Your task to perform on an android device: change the clock display to analog Image 0: 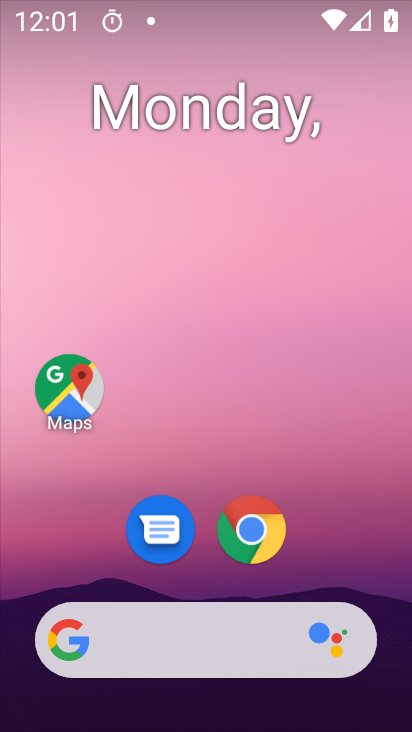
Step 0: drag from (384, 582) to (360, 171)
Your task to perform on an android device: change the clock display to analog Image 1: 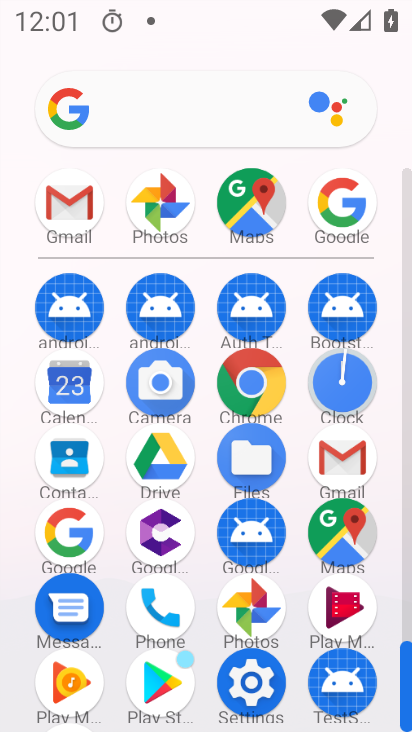
Step 1: click (344, 396)
Your task to perform on an android device: change the clock display to analog Image 2: 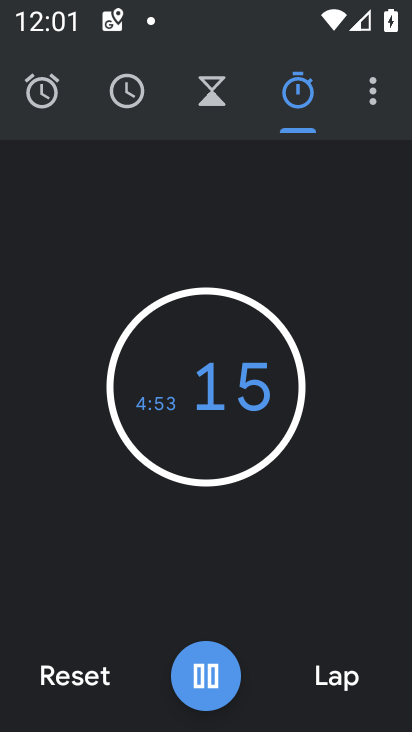
Step 2: click (376, 102)
Your task to perform on an android device: change the clock display to analog Image 3: 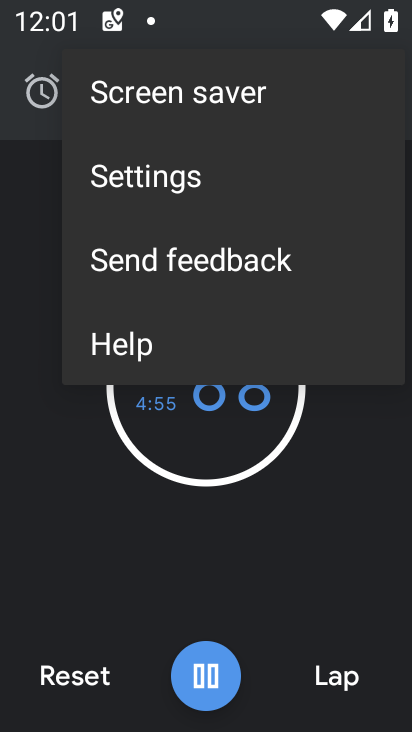
Step 3: click (240, 193)
Your task to perform on an android device: change the clock display to analog Image 4: 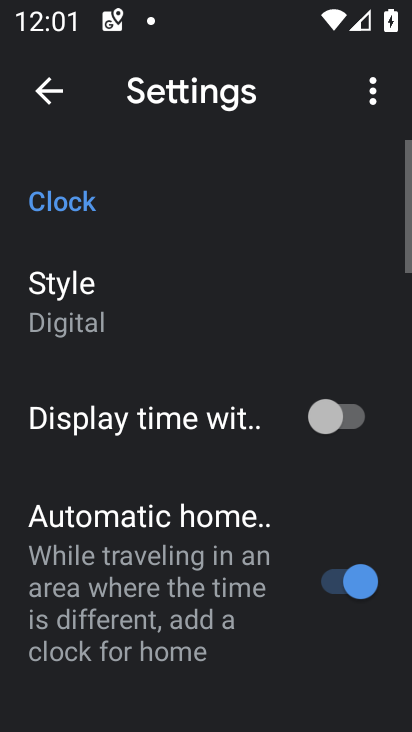
Step 4: drag from (274, 466) to (275, 360)
Your task to perform on an android device: change the clock display to analog Image 5: 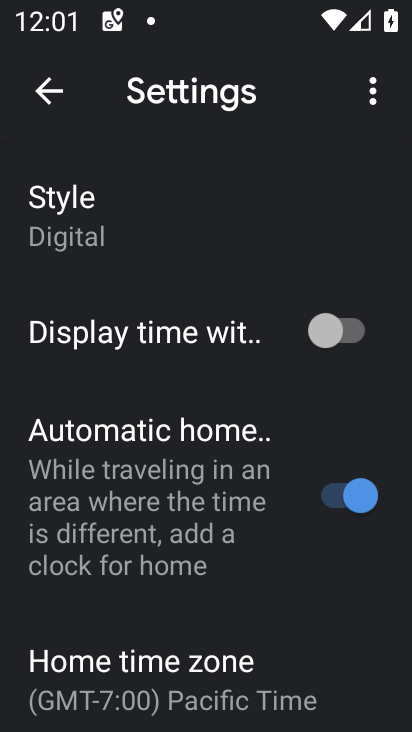
Step 5: drag from (277, 491) to (281, 375)
Your task to perform on an android device: change the clock display to analog Image 6: 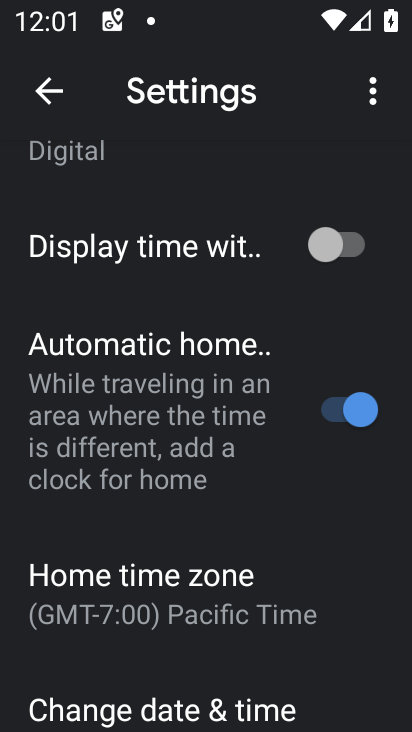
Step 6: drag from (272, 489) to (276, 370)
Your task to perform on an android device: change the clock display to analog Image 7: 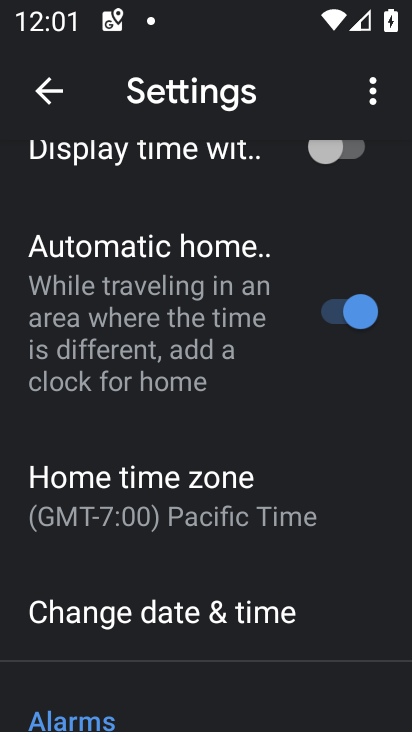
Step 7: drag from (282, 523) to (282, 422)
Your task to perform on an android device: change the clock display to analog Image 8: 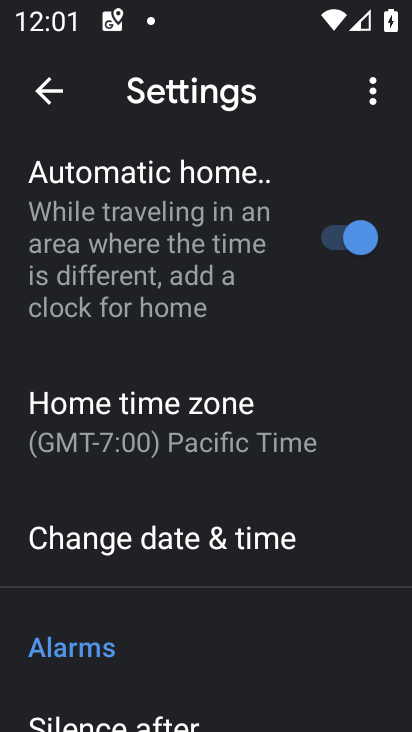
Step 8: drag from (272, 583) to (275, 462)
Your task to perform on an android device: change the clock display to analog Image 9: 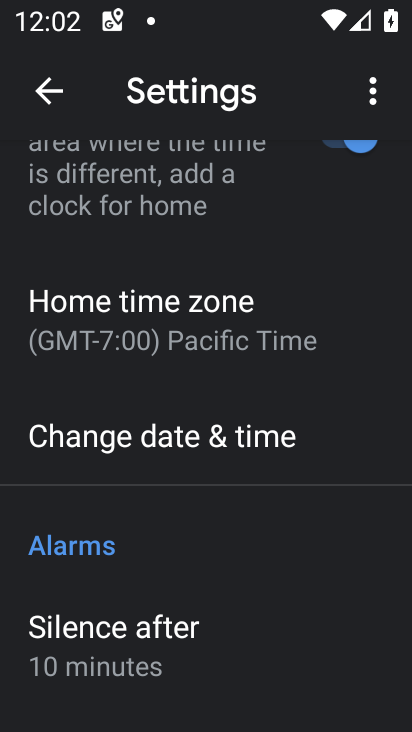
Step 9: drag from (285, 590) to (293, 490)
Your task to perform on an android device: change the clock display to analog Image 10: 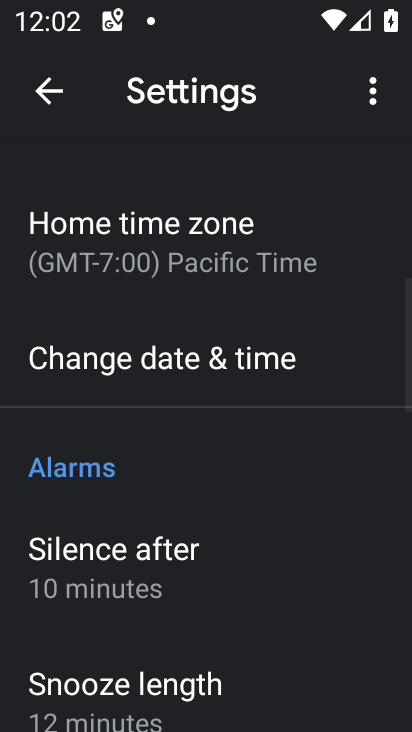
Step 10: drag from (301, 620) to (321, 500)
Your task to perform on an android device: change the clock display to analog Image 11: 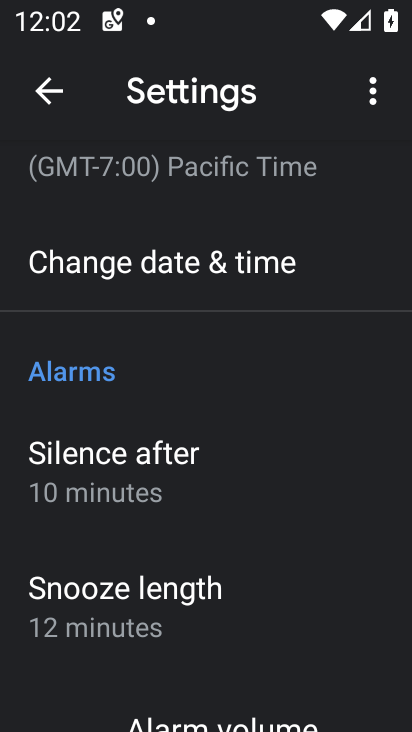
Step 11: drag from (314, 635) to (325, 481)
Your task to perform on an android device: change the clock display to analog Image 12: 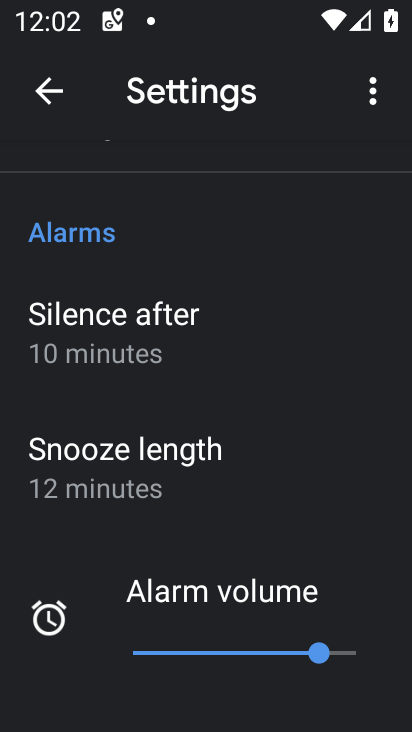
Step 12: drag from (328, 657) to (334, 499)
Your task to perform on an android device: change the clock display to analog Image 13: 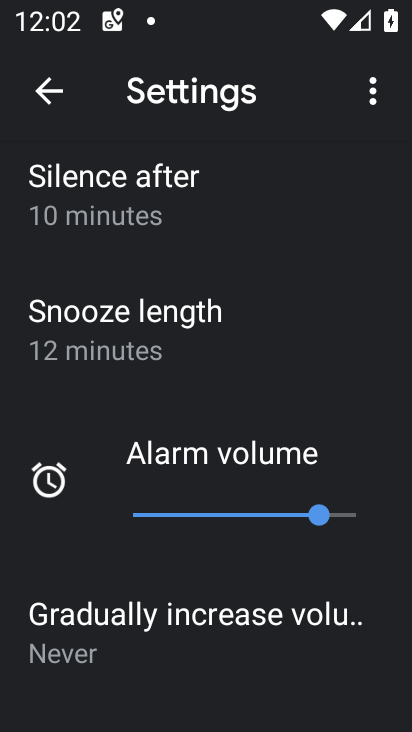
Step 13: drag from (315, 680) to (321, 497)
Your task to perform on an android device: change the clock display to analog Image 14: 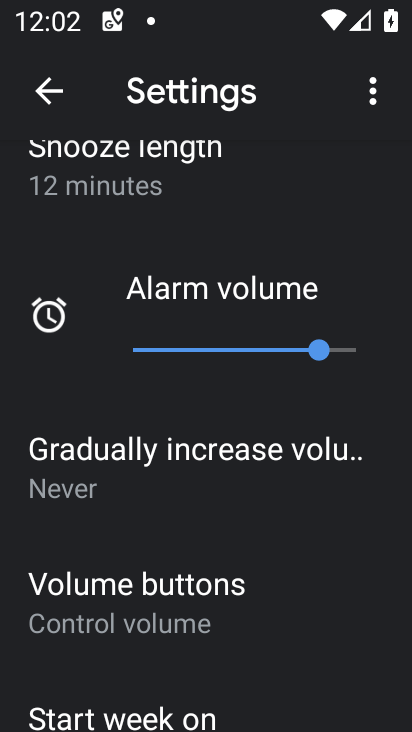
Step 14: drag from (312, 643) to (323, 451)
Your task to perform on an android device: change the clock display to analog Image 15: 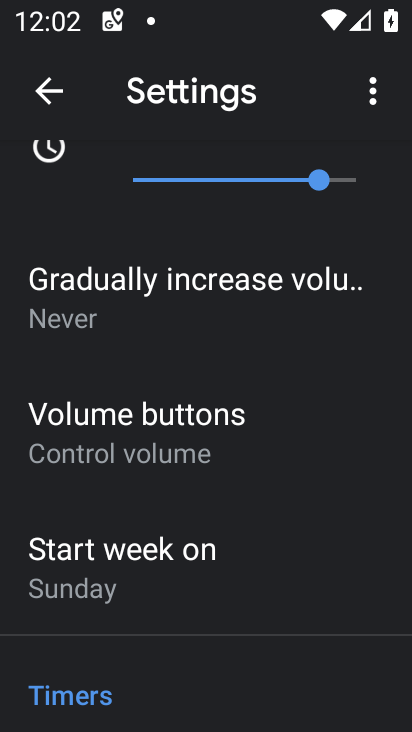
Step 15: drag from (299, 647) to (307, 446)
Your task to perform on an android device: change the clock display to analog Image 16: 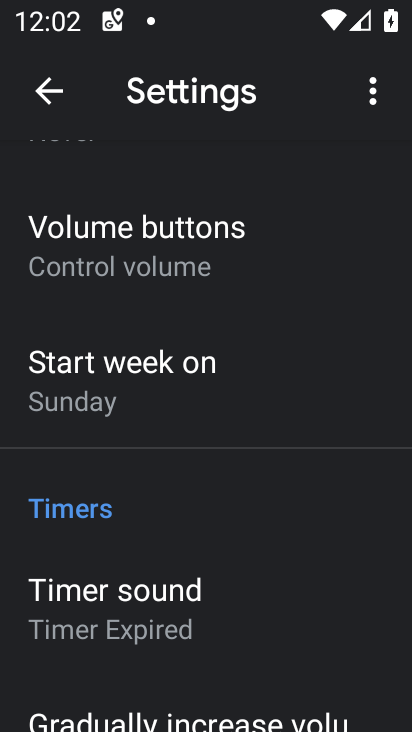
Step 16: drag from (301, 640) to (296, 443)
Your task to perform on an android device: change the clock display to analog Image 17: 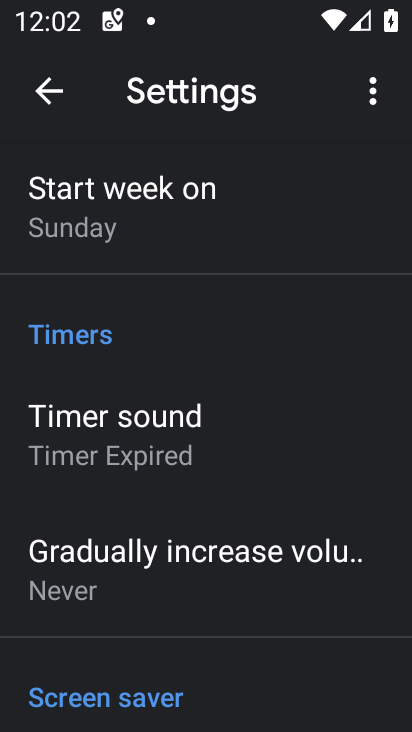
Step 17: drag from (293, 651) to (300, 452)
Your task to perform on an android device: change the clock display to analog Image 18: 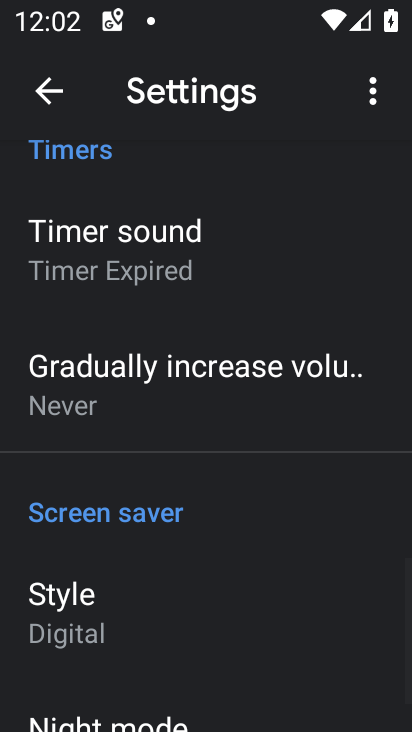
Step 18: drag from (323, 380) to (311, 520)
Your task to perform on an android device: change the clock display to analog Image 19: 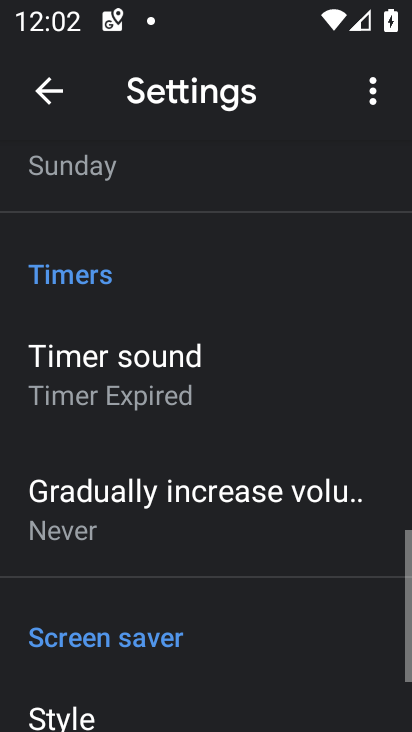
Step 19: drag from (315, 373) to (310, 498)
Your task to perform on an android device: change the clock display to analog Image 20: 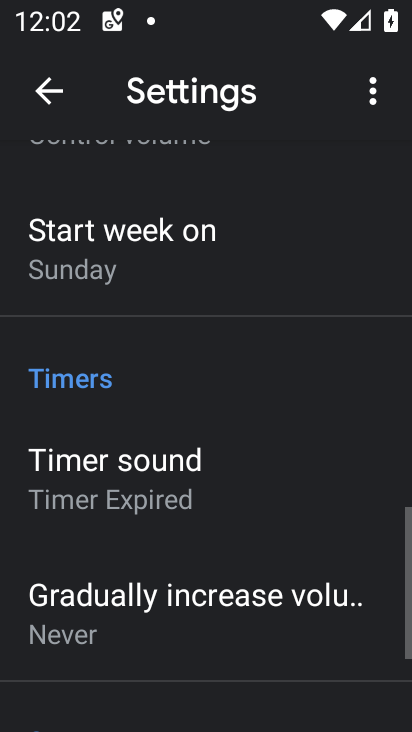
Step 20: drag from (314, 372) to (311, 497)
Your task to perform on an android device: change the clock display to analog Image 21: 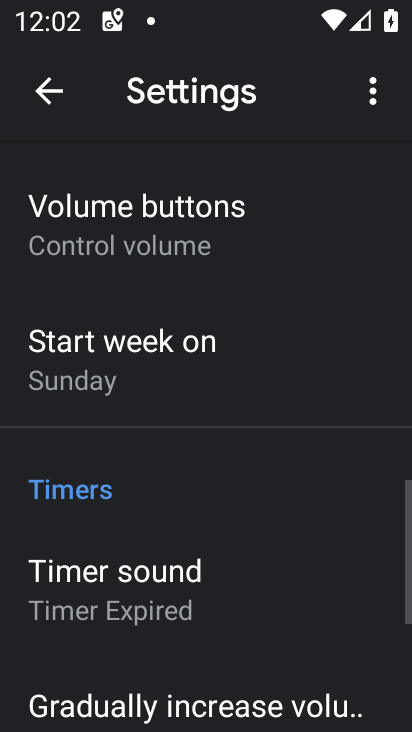
Step 21: drag from (313, 344) to (298, 460)
Your task to perform on an android device: change the clock display to analog Image 22: 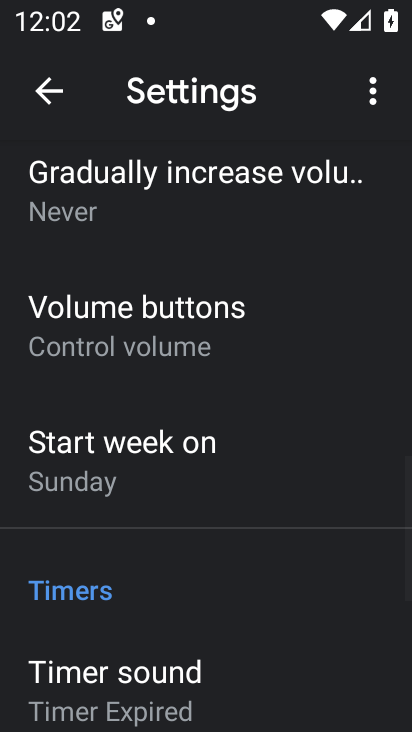
Step 22: drag from (302, 297) to (303, 413)
Your task to perform on an android device: change the clock display to analog Image 23: 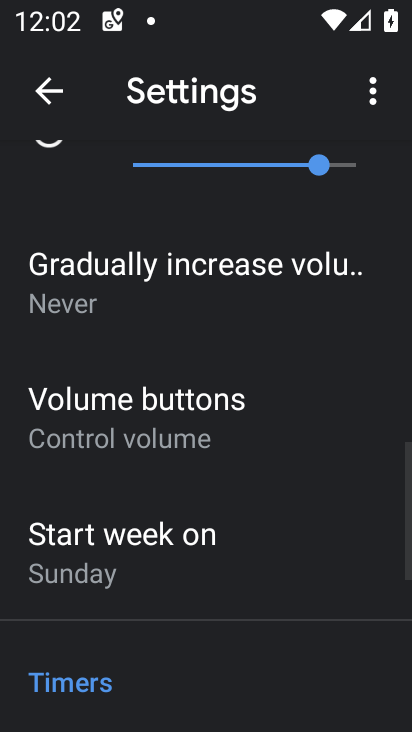
Step 23: drag from (320, 216) to (322, 354)
Your task to perform on an android device: change the clock display to analog Image 24: 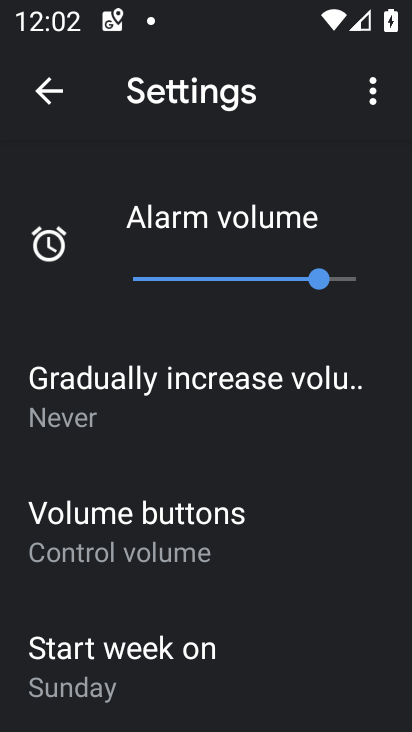
Step 24: drag from (344, 203) to (341, 349)
Your task to perform on an android device: change the clock display to analog Image 25: 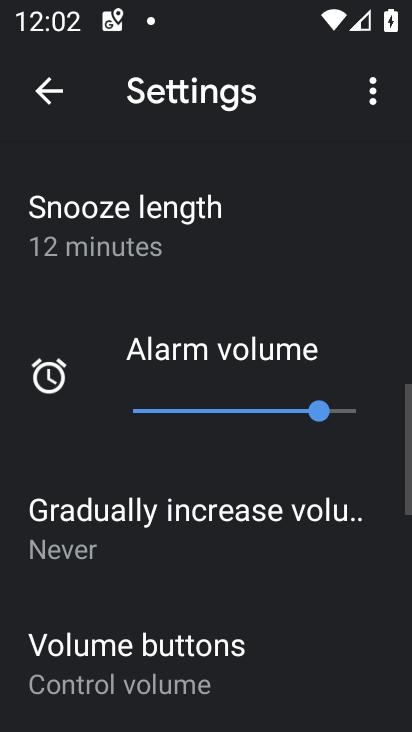
Step 25: drag from (344, 181) to (346, 326)
Your task to perform on an android device: change the clock display to analog Image 26: 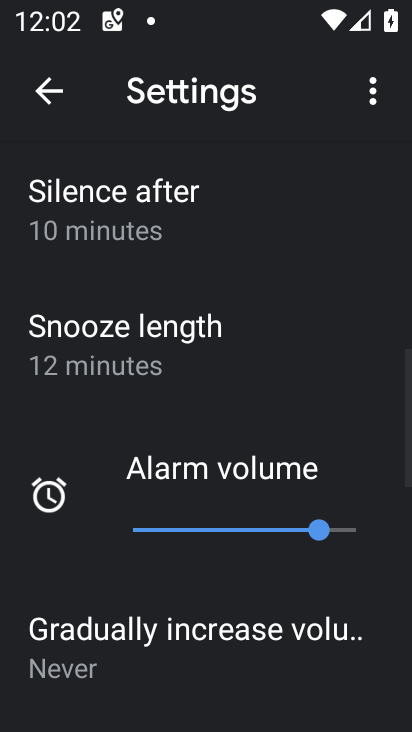
Step 26: drag from (327, 164) to (326, 322)
Your task to perform on an android device: change the clock display to analog Image 27: 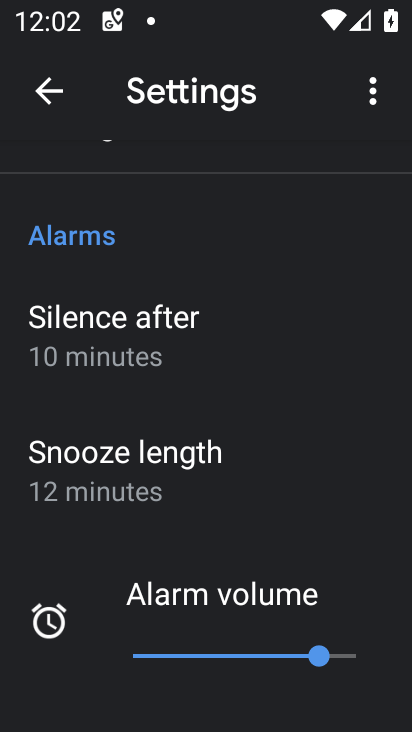
Step 27: drag from (310, 183) to (308, 333)
Your task to perform on an android device: change the clock display to analog Image 28: 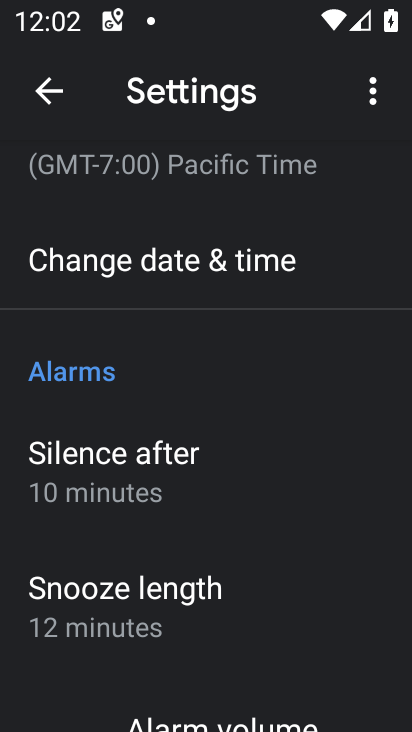
Step 28: drag from (319, 195) to (318, 335)
Your task to perform on an android device: change the clock display to analog Image 29: 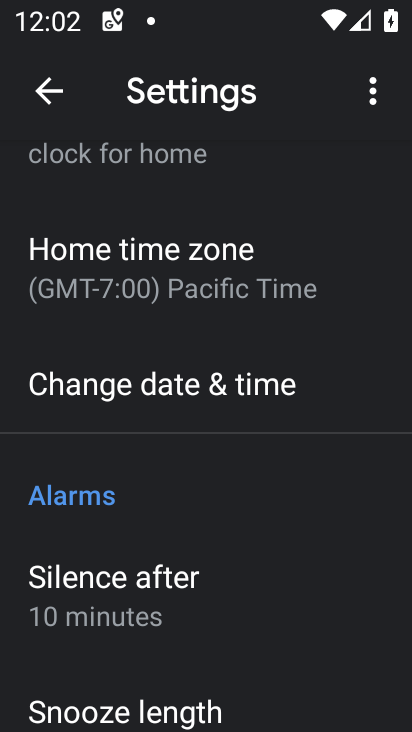
Step 29: drag from (304, 203) to (300, 363)
Your task to perform on an android device: change the clock display to analog Image 30: 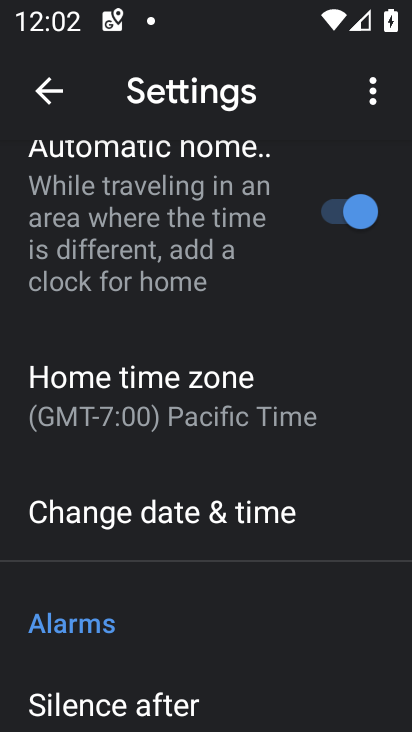
Step 30: drag from (294, 165) to (283, 327)
Your task to perform on an android device: change the clock display to analog Image 31: 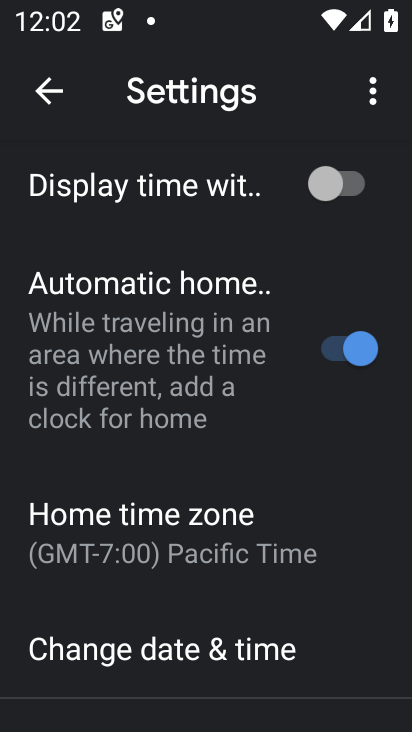
Step 31: drag from (280, 153) to (267, 328)
Your task to perform on an android device: change the clock display to analog Image 32: 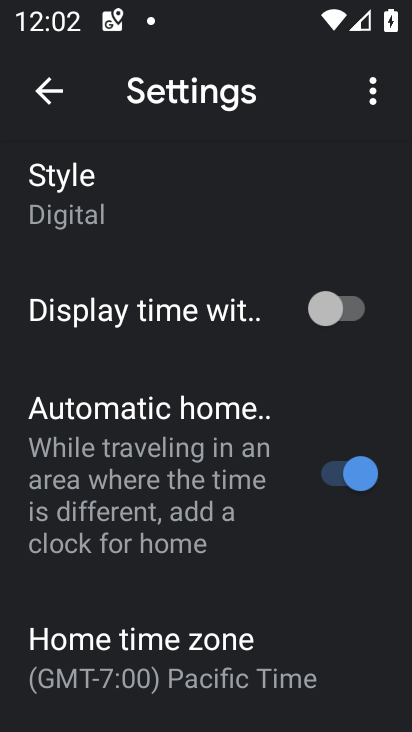
Step 32: click (64, 197)
Your task to perform on an android device: change the clock display to analog Image 33: 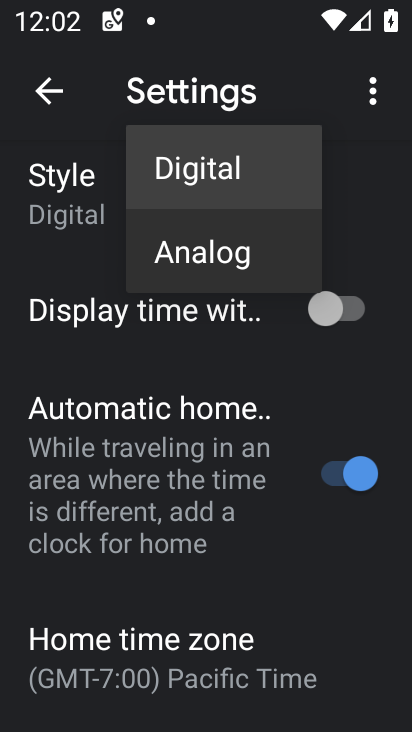
Step 33: click (267, 265)
Your task to perform on an android device: change the clock display to analog Image 34: 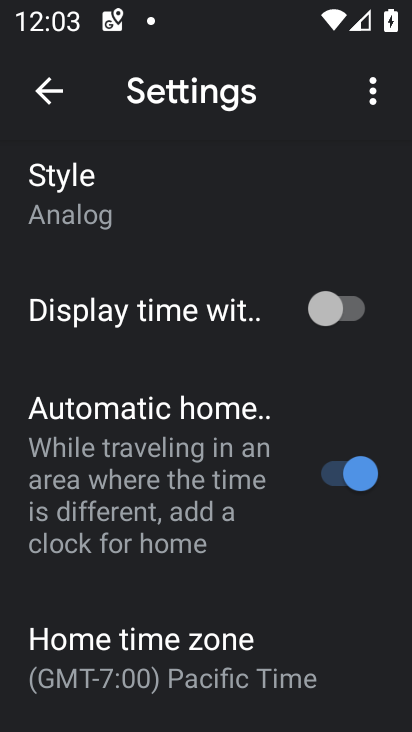
Step 34: task complete